Your task to perform on an android device: turn on bluetooth scan Image 0: 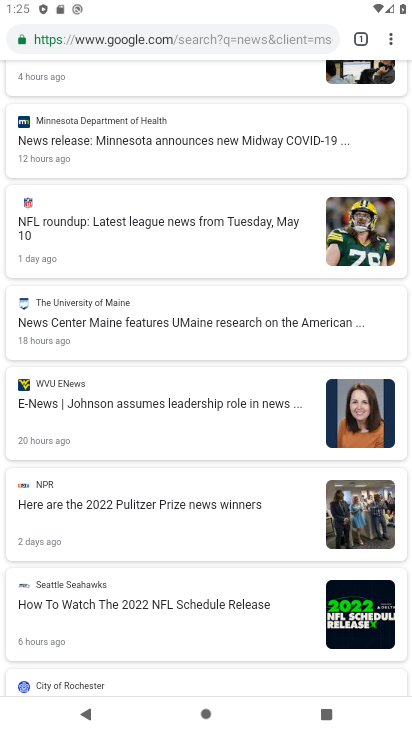
Step 0: press home button
Your task to perform on an android device: turn on bluetooth scan Image 1: 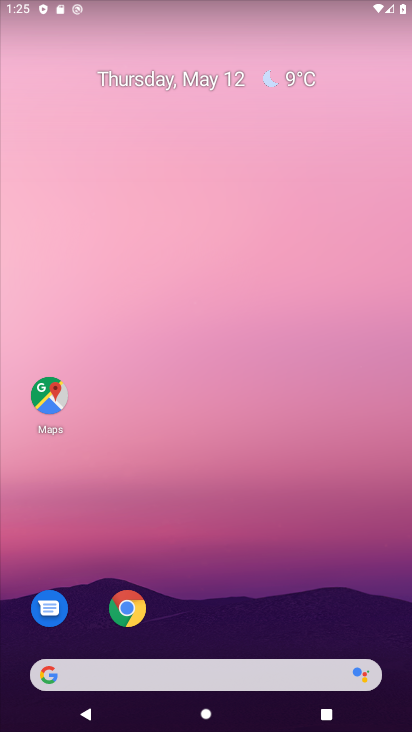
Step 1: drag from (241, 591) to (167, 153)
Your task to perform on an android device: turn on bluetooth scan Image 2: 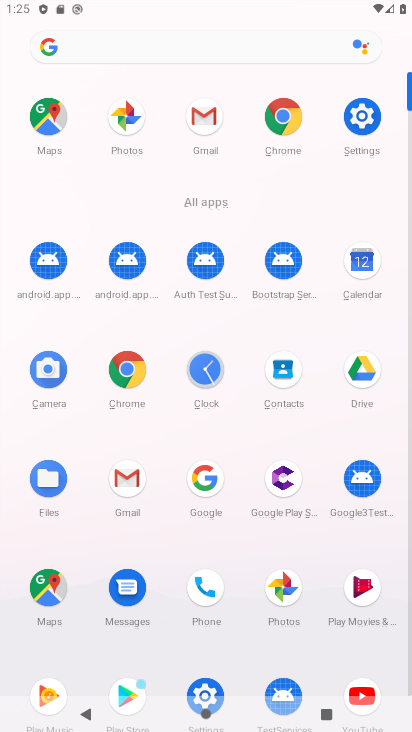
Step 2: click (369, 117)
Your task to perform on an android device: turn on bluetooth scan Image 3: 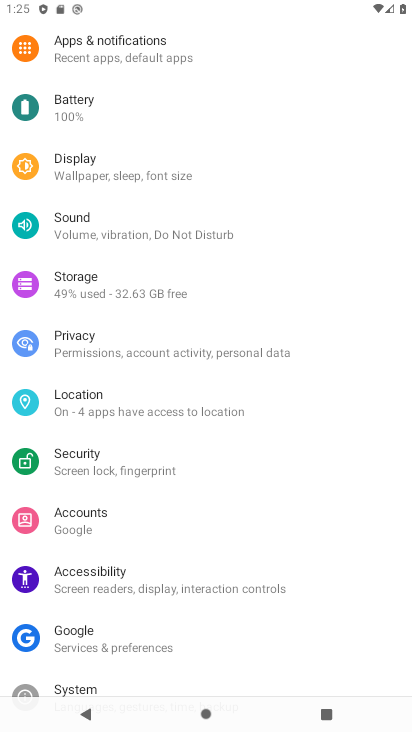
Step 3: click (183, 401)
Your task to perform on an android device: turn on bluetooth scan Image 4: 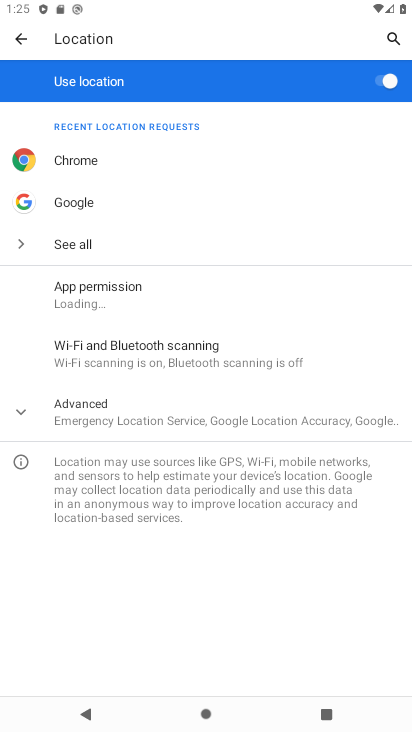
Step 4: click (195, 363)
Your task to perform on an android device: turn on bluetooth scan Image 5: 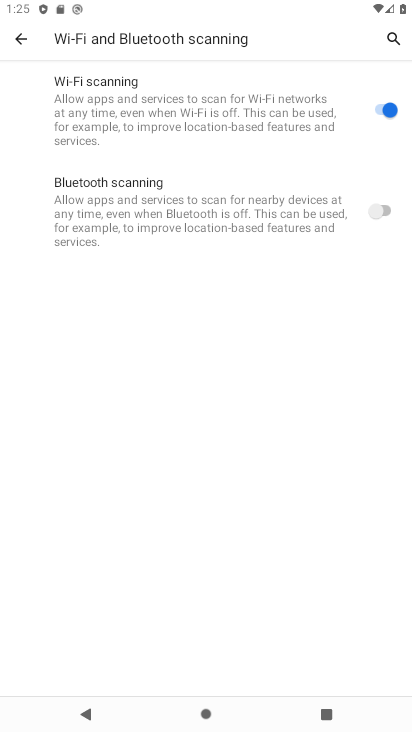
Step 5: click (375, 210)
Your task to perform on an android device: turn on bluetooth scan Image 6: 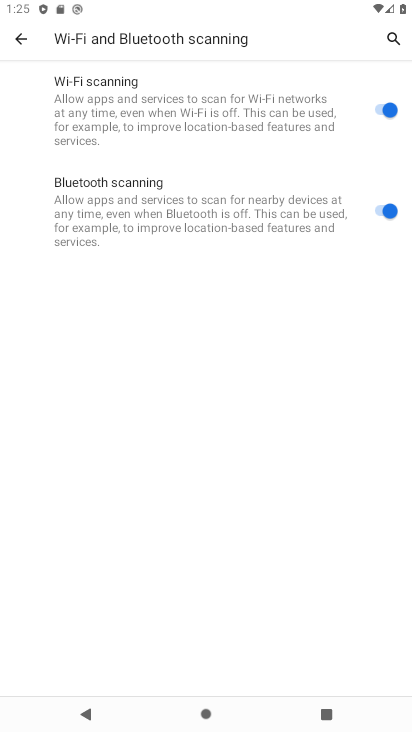
Step 6: task complete